Your task to perform on an android device: delete the emails in spam in the gmail app Image 0: 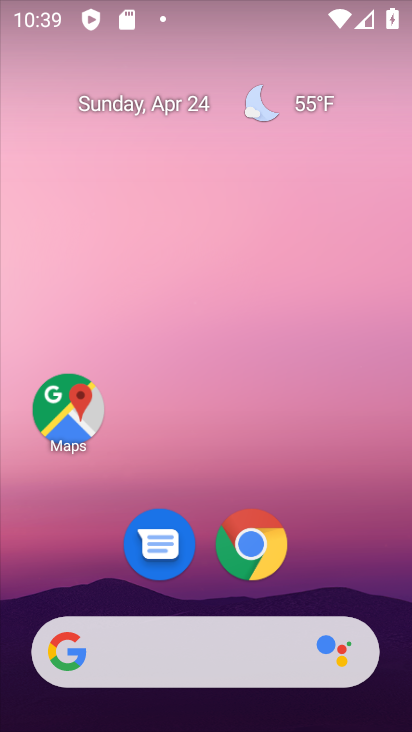
Step 0: drag from (343, 485) to (278, 60)
Your task to perform on an android device: delete the emails in spam in the gmail app Image 1: 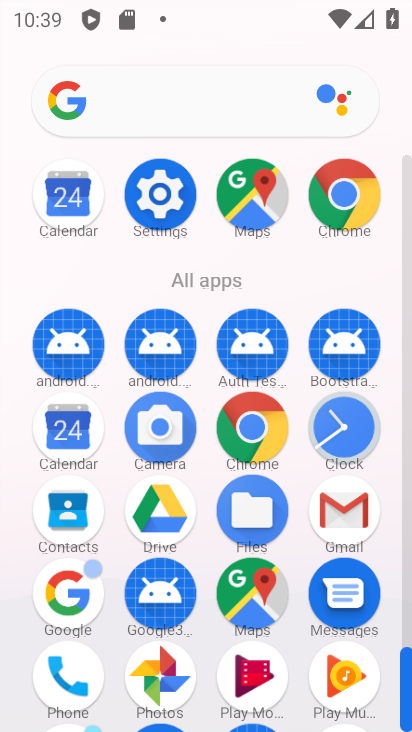
Step 1: click (347, 531)
Your task to perform on an android device: delete the emails in spam in the gmail app Image 2: 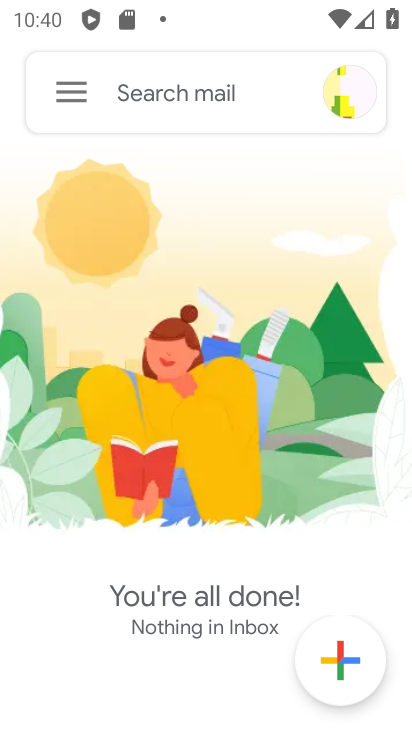
Step 2: click (73, 102)
Your task to perform on an android device: delete the emails in spam in the gmail app Image 3: 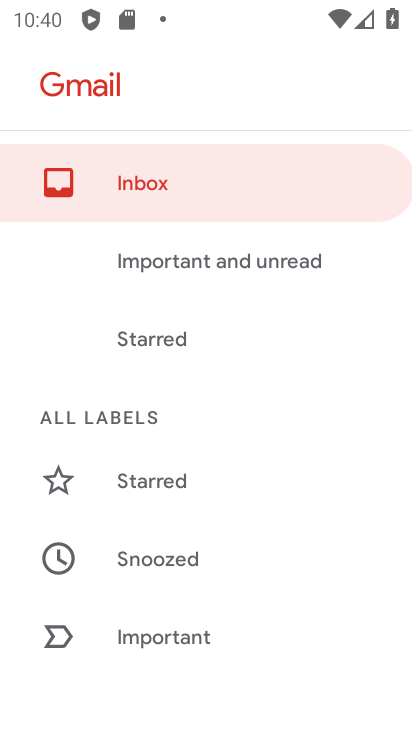
Step 3: drag from (252, 565) to (252, 150)
Your task to perform on an android device: delete the emails in spam in the gmail app Image 4: 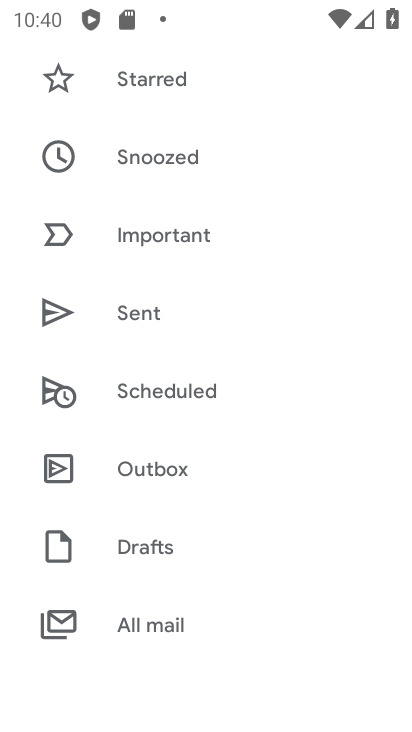
Step 4: drag from (201, 594) to (221, 251)
Your task to perform on an android device: delete the emails in spam in the gmail app Image 5: 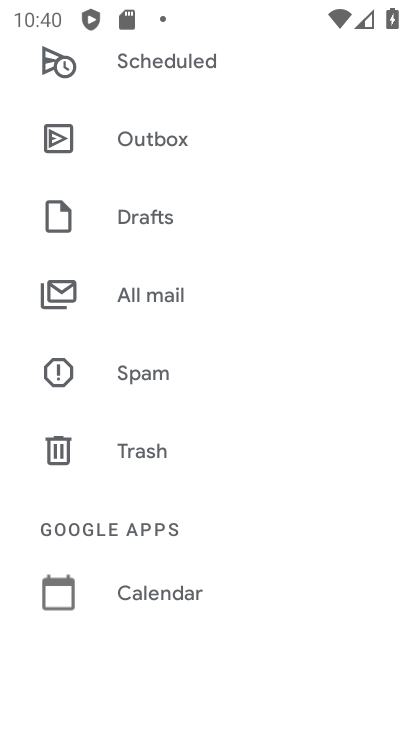
Step 5: click (131, 375)
Your task to perform on an android device: delete the emails in spam in the gmail app Image 6: 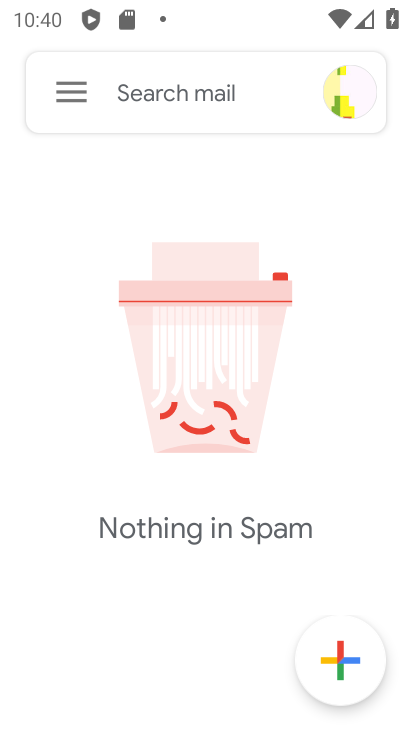
Step 6: task complete